Your task to perform on an android device: Go to accessibility settings Image 0: 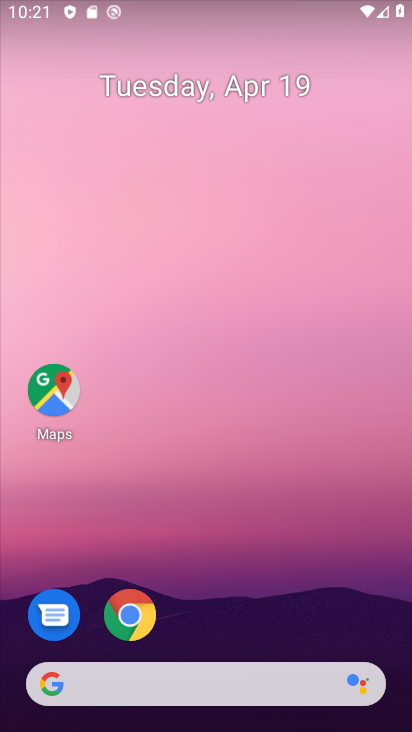
Step 0: drag from (188, 658) to (348, 54)
Your task to perform on an android device: Go to accessibility settings Image 1: 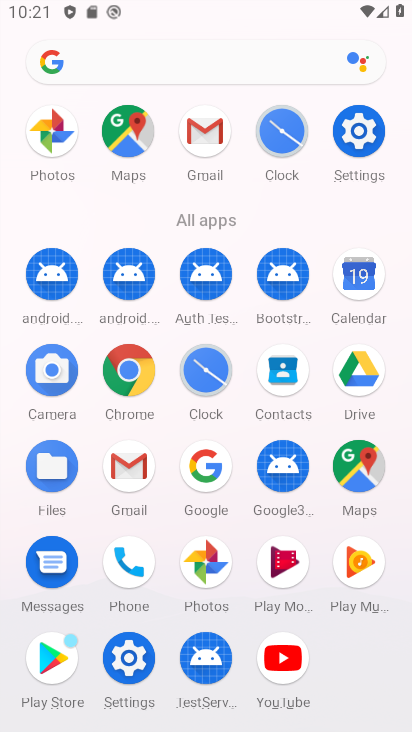
Step 1: click (354, 124)
Your task to perform on an android device: Go to accessibility settings Image 2: 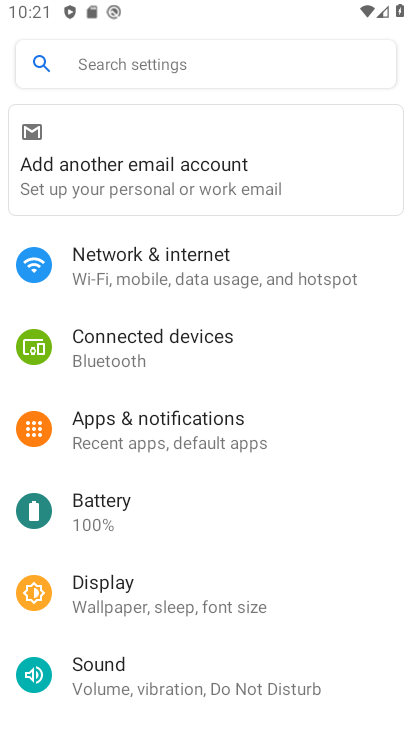
Step 2: drag from (307, 425) to (411, 91)
Your task to perform on an android device: Go to accessibility settings Image 3: 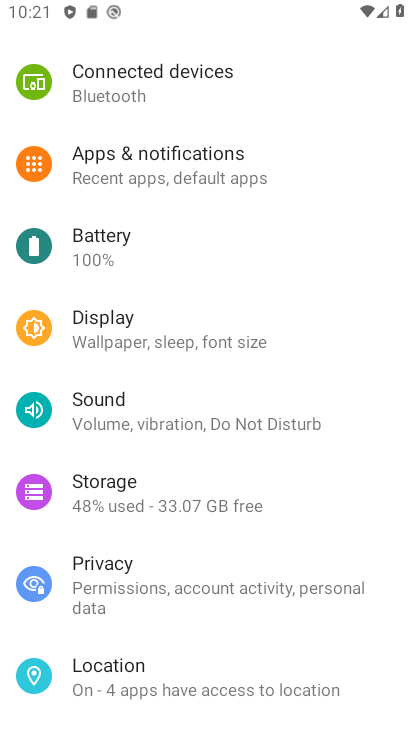
Step 3: drag from (144, 625) to (384, 17)
Your task to perform on an android device: Go to accessibility settings Image 4: 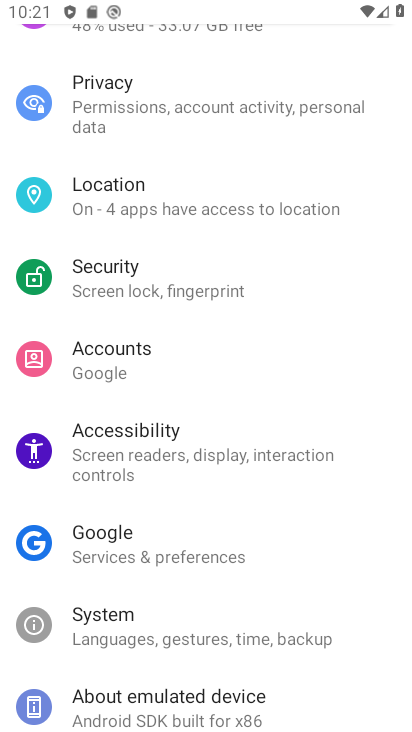
Step 4: click (186, 449)
Your task to perform on an android device: Go to accessibility settings Image 5: 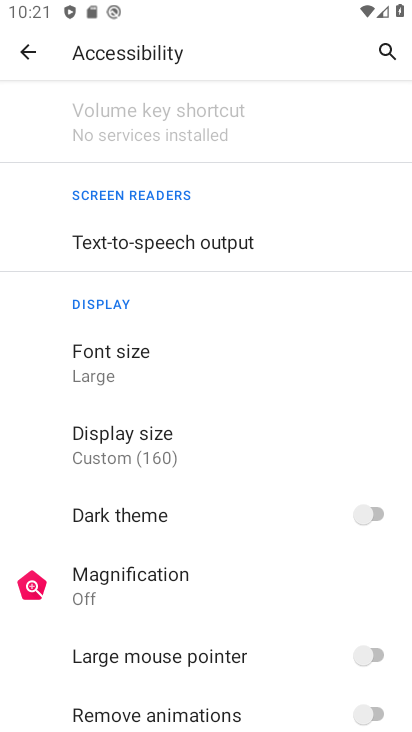
Step 5: task complete